Your task to perform on an android device: check battery use Image 0: 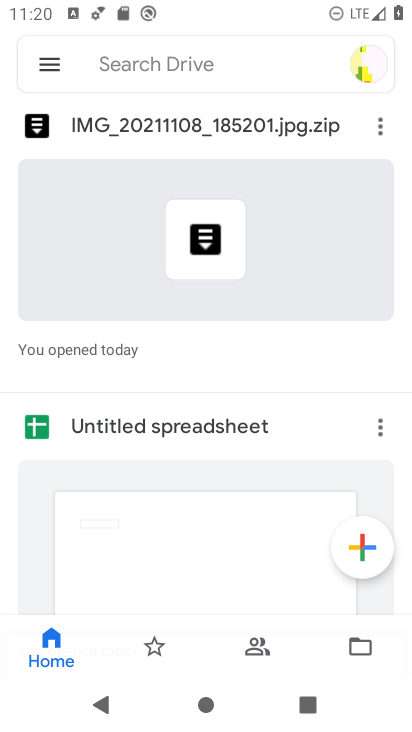
Step 0: press home button
Your task to perform on an android device: check battery use Image 1: 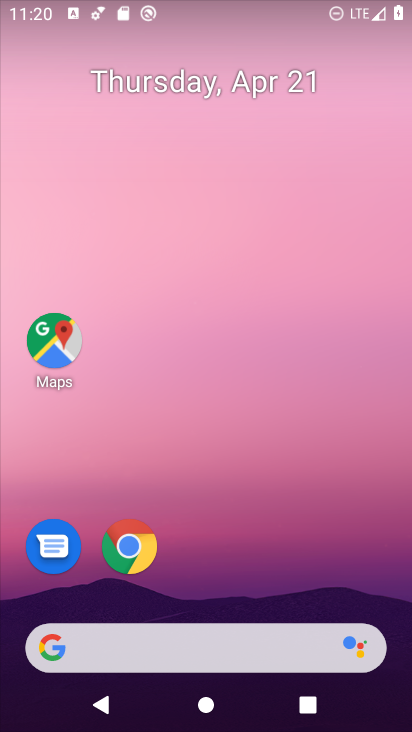
Step 1: drag from (352, 573) to (223, 29)
Your task to perform on an android device: check battery use Image 2: 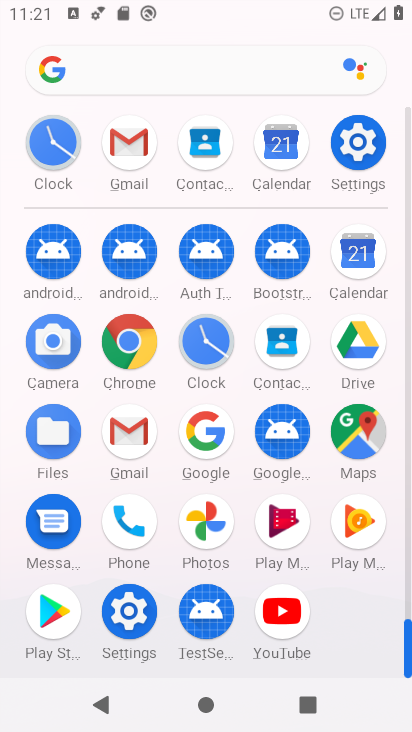
Step 2: click (119, 607)
Your task to perform on an android device: check battery use Image 3: 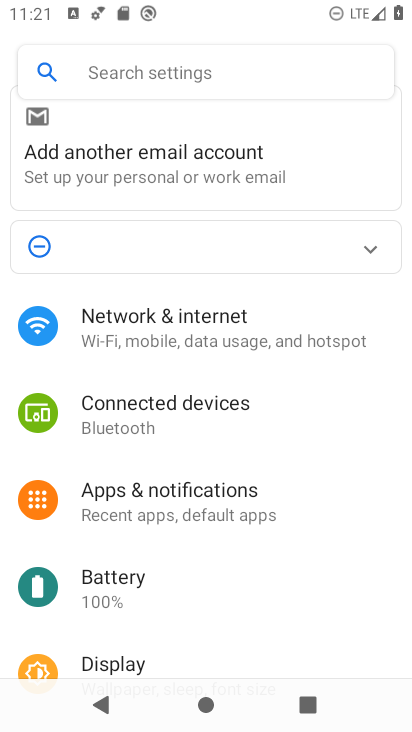
Step 3: click (132, 577)
Your task to perform on an android device: check battery use Image 4: 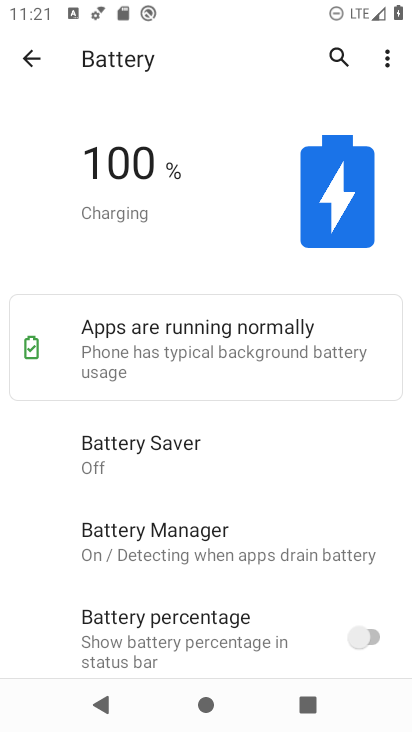
Step 4: click (384, 51)
Your task to perform on an android device: check battery use Image 5: 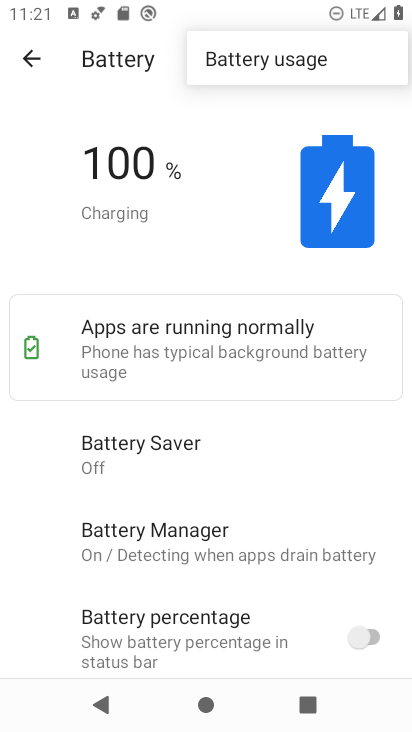
Step 5: click (268, 56)
Your task to perform on an android device: check battery use Image 6: 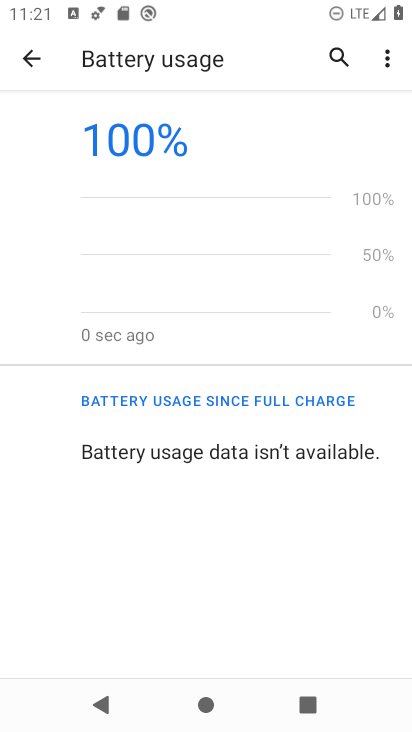
Step 6: task complete